Your task to perform on an android device: What's on my calendar tomorrow? Image 0: 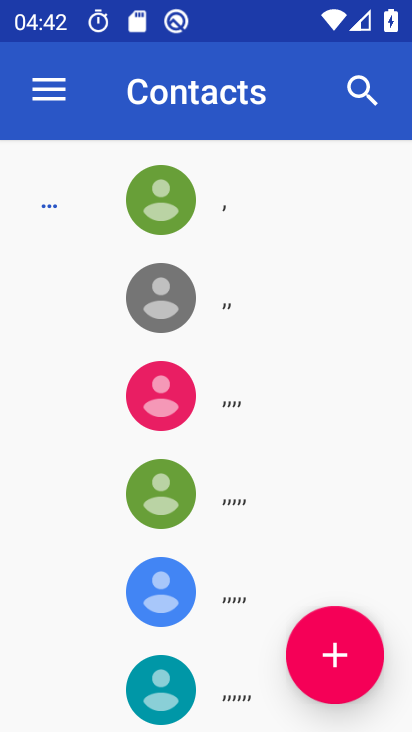
Step 0: drag from (220, 560) to (303, 184)
Your task to perform on an android device: What's on my calendar tomorrow? Image 1: 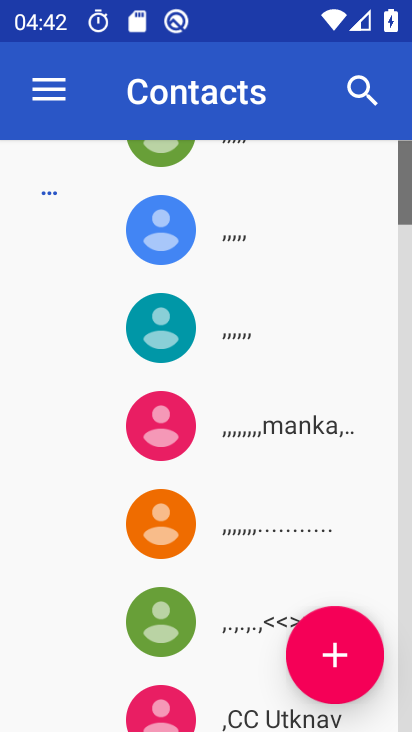
Step 1: press back button
Your task to perform on an android device: What's on my calendar tomorrow? Image 2: 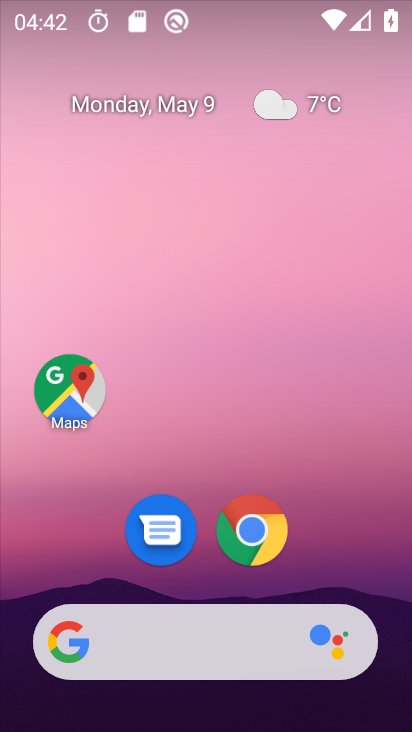
Step 2: drag from (199, 567) to (326, 49)
Your task to perform on an android device: What's on my calendar tomorrow? Image 3: 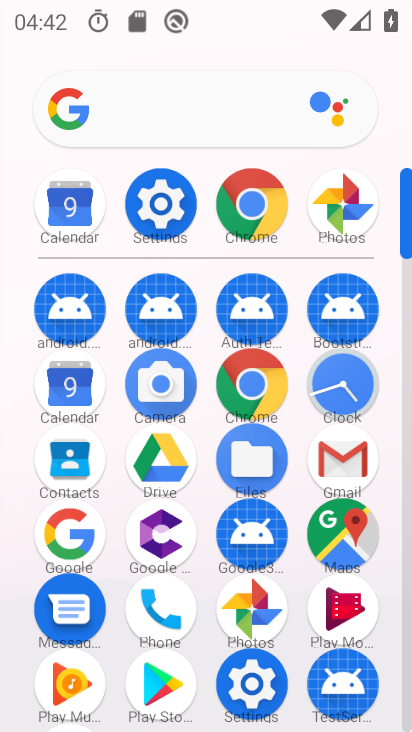
Step 3: click (71, 392)
Your task to perform on an android device: What's on my calendar tomorrow? Image 4: 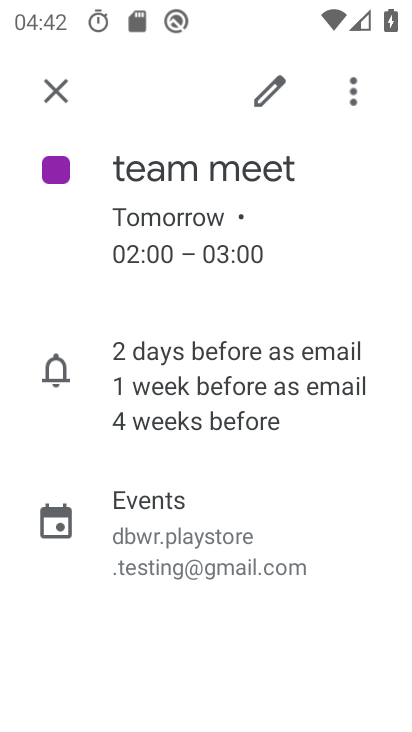
Step 4: click (57, 84)
Your task to perform on an android device: What's on my calendar tomorrow? Image 5: 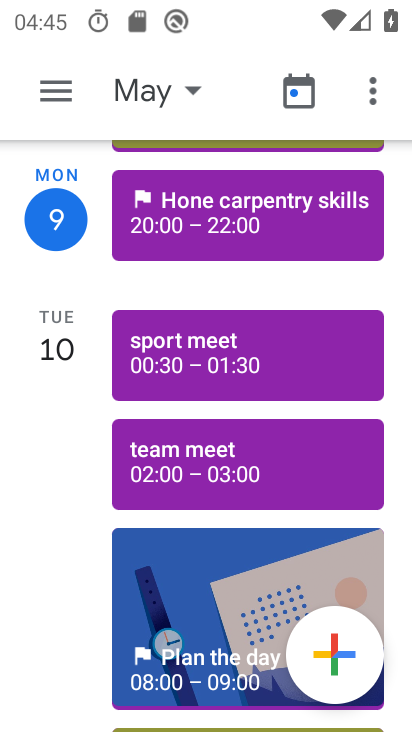
Step 5: drag from (193, 644) to (262, 402)
Your task to perform on an android device: What's on my calendar tomorrow? Image 6: 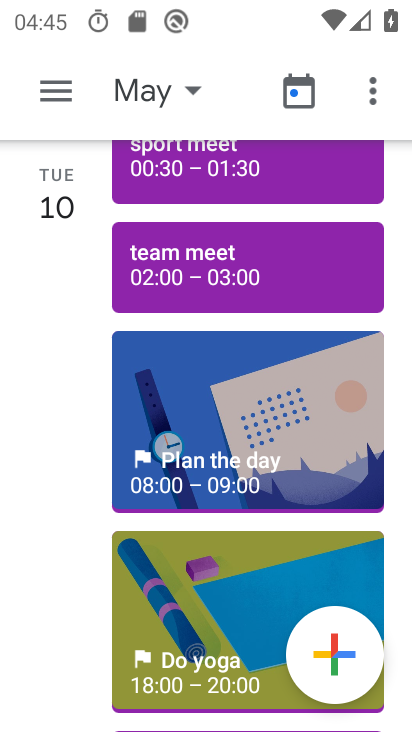
Step 6: click (195, 261)
Your task to perform on an android device: What's on my calendar tomorrow? Image 7: 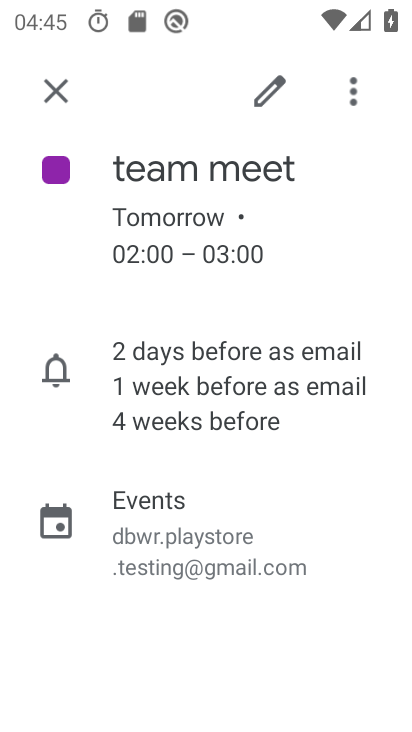
Step 7: task complete